Your task to perform on an android device: turn off sleep mode Image 0: 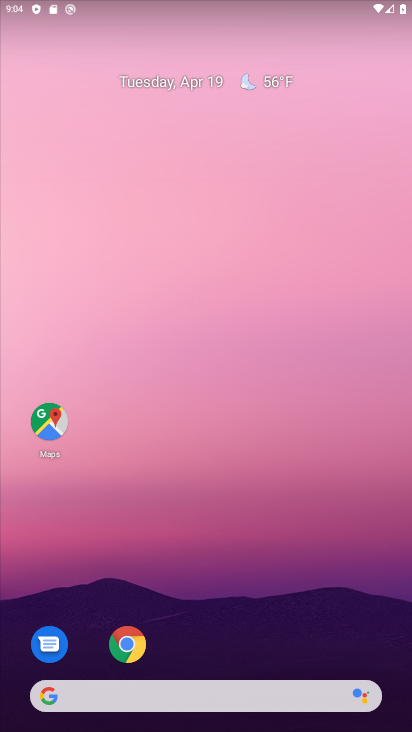
Step 0: drag from (214, 382) to (214, 126)
Your task to perform on an android device: turn off sleep mode Image 1: 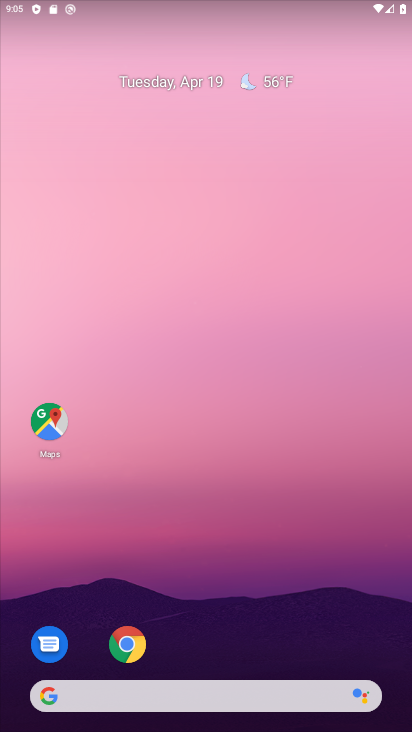
Step 1: drag from (223, 657) to (192, 106)
Your task to perform on an android device: turn off sleep mode Image 2: 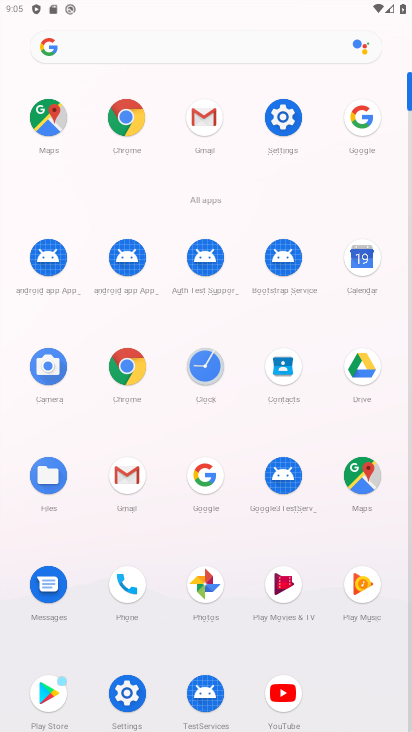
Step 2: click (278, 112)
Your task to perform on an android device: turn off sleep mode Image 3: 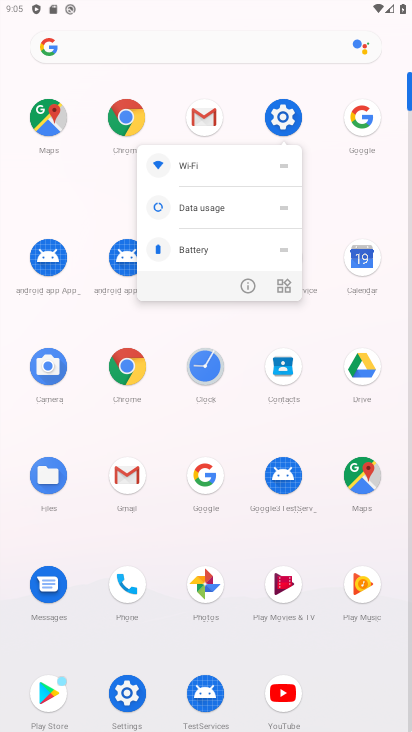
Step 3: click (277, 126)
Your task to perform on an android device: turn off sleep mode Image 4: 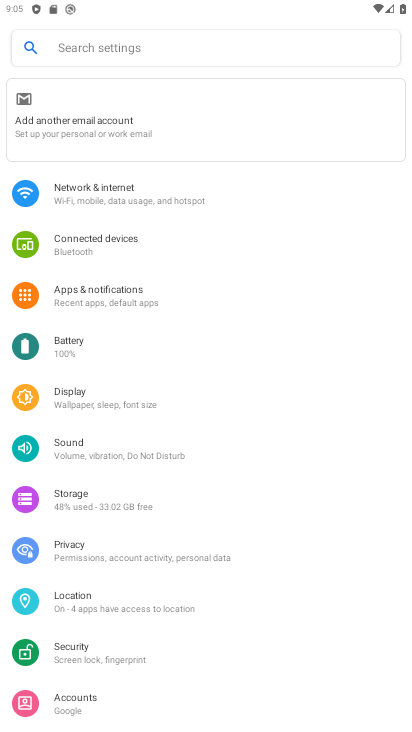
Step 4: click (88, 404)
Your task to perform on an android device: turn off sleep mode Image 5: 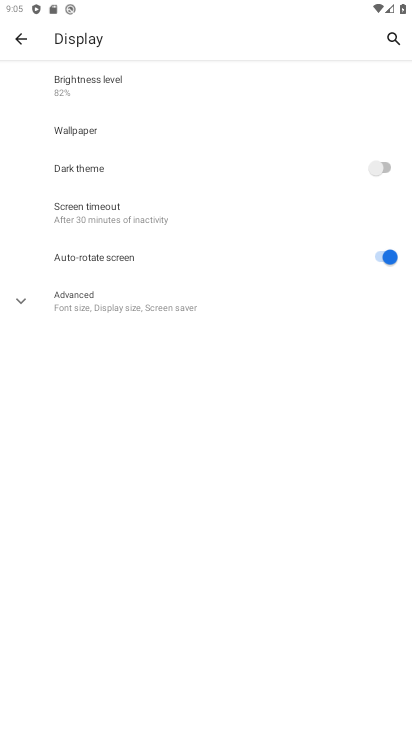
Step 5: click (135, 214)
Your task to perform on an android device: turn off sleep mode Image 6: 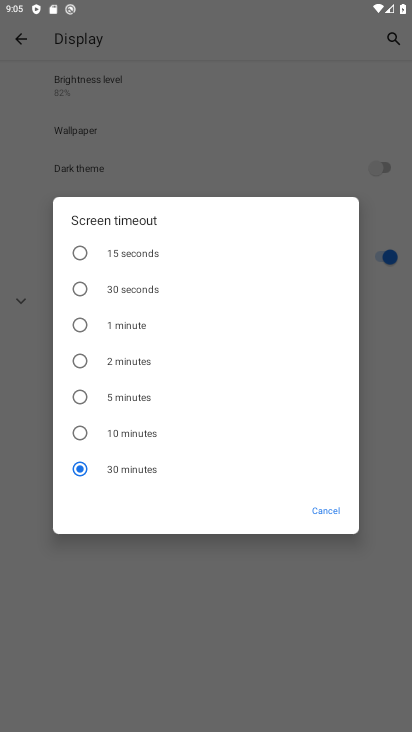
Step 6: click (136, 297)
Your task to perform on an android device: turn off sleep mode Image 7: 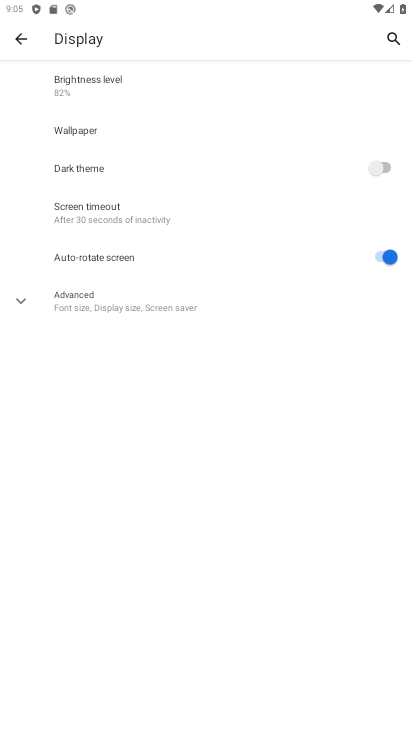
Step 7: task complete